Your task to perform on an android device: Open the stopwatch Image 0: 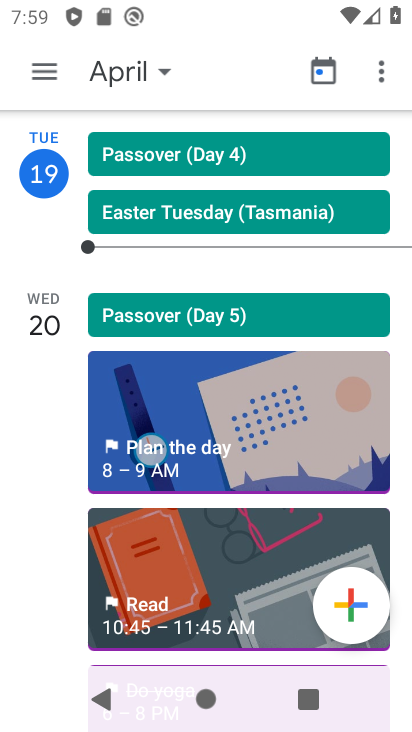
Step 0: press home button
Your task to perform on an android device: Open the stopwatch Image 1: 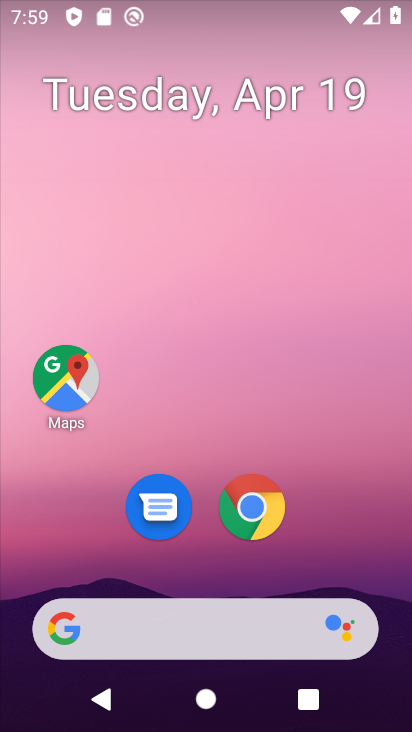
Step 1: drag from (374, 580) to (280, 79)
Your task to perform on an android device: Open the stopwatch Image 2: 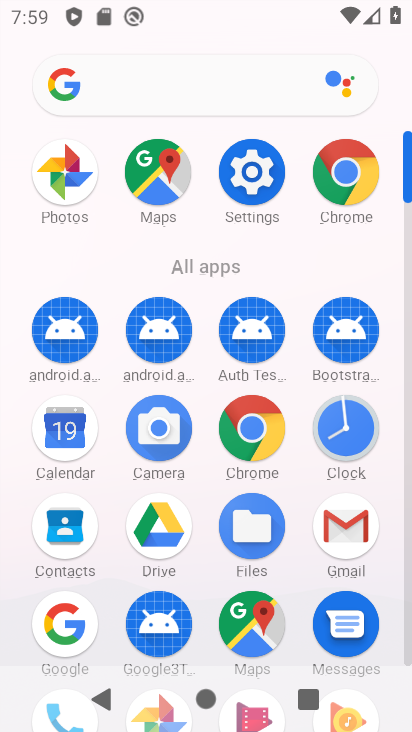
Step 2: click (353, 447)
Your task to perform on an android device: Open the stopwatch Image 3: 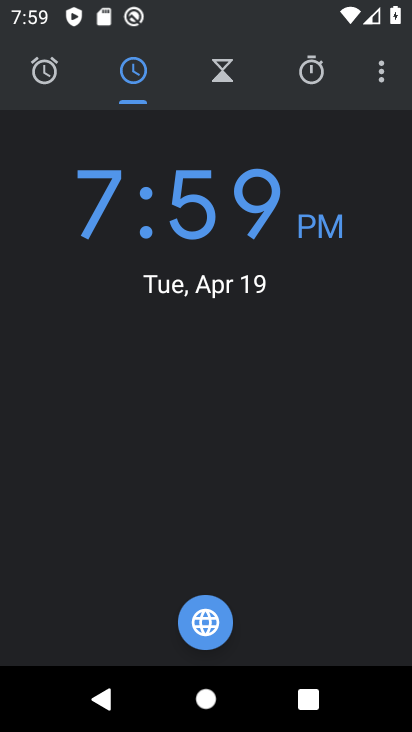
Step 3: click (313, 62)
Your task to perform on an android device: Open the stopwatch Image 4: 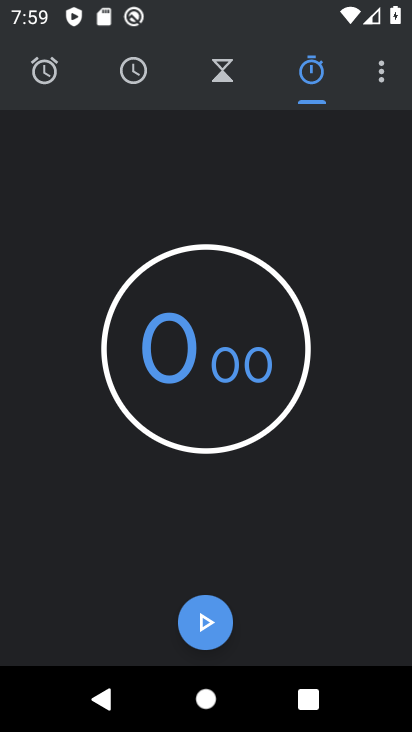
Step 4: click (203, 622)
Your task to perform on an android device: Open the stopwatch Image 5: 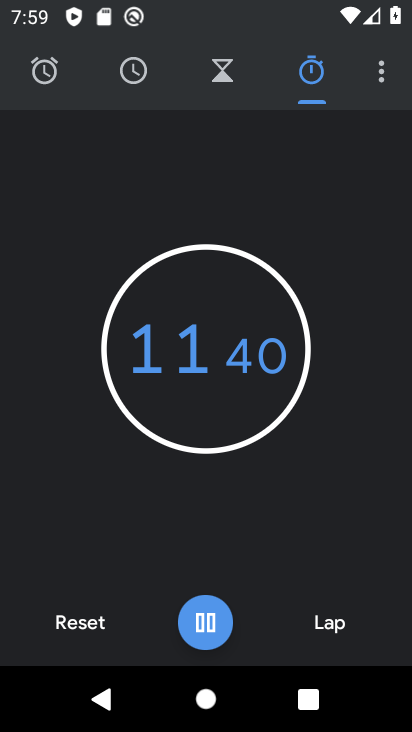
Step 5: click (193, 628)
Your task to perform on an android device: Open the stopwatch Image 6: 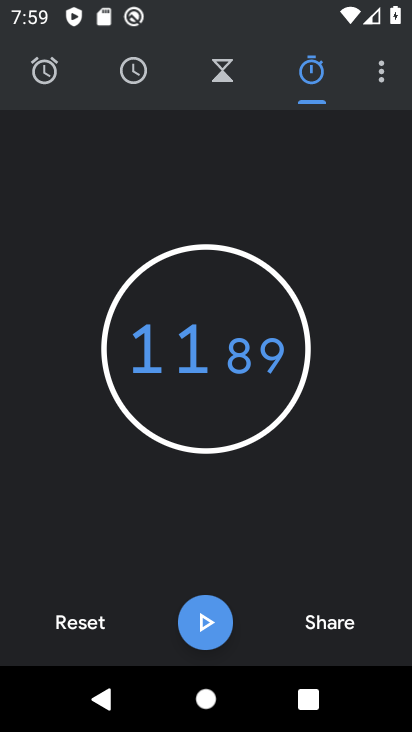
Step 6: task complete